Your task to perform on an android device: turn on data saver in the chrome app Image 0: 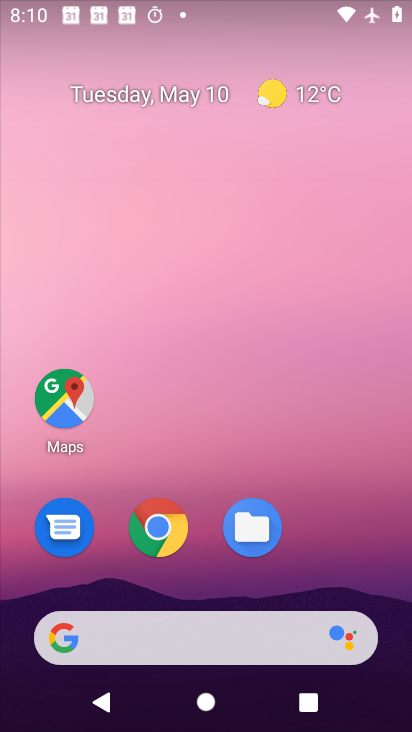
Step 0: click (164, 535)
Your task to perform on an android device: turn on data saver in the chrome app Image 1: 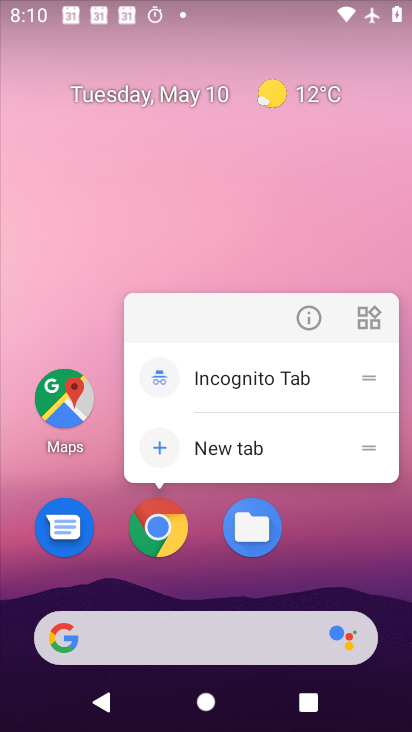
Step 1: click (163, 554)
Your task to perform on an android device: turn on data saver in the chrome app Image 2: 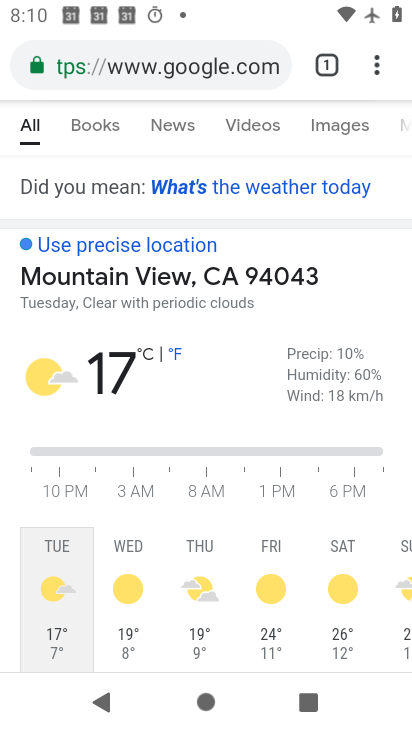
Step 2: drag from (377, 77) to (254, 572)
Your task to perform on an android device: turn on data saver in the chrome app Image 3: 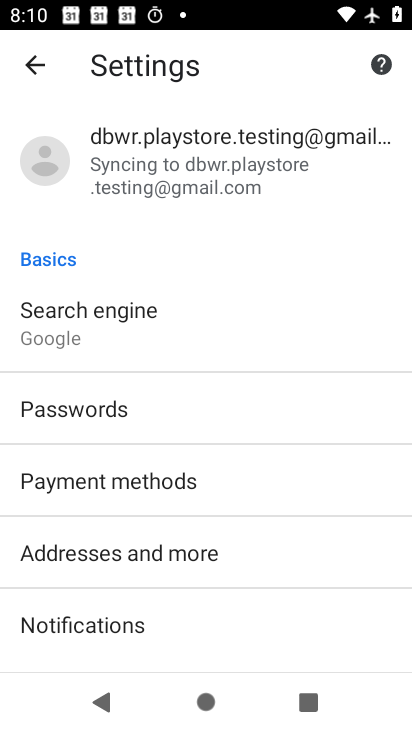
Step 3: drag from (264, 546) to (305, 248)
Your task to perform on an android device: turn on data saver in the chrome app Image 4: 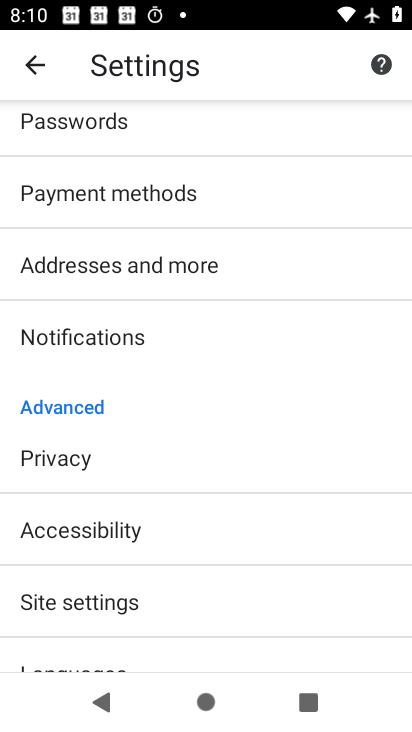
Step 4: drag from (268, 570) to (288, 412)
Your task to perform on an android device: turn on data saver in the chrome app Image 5: 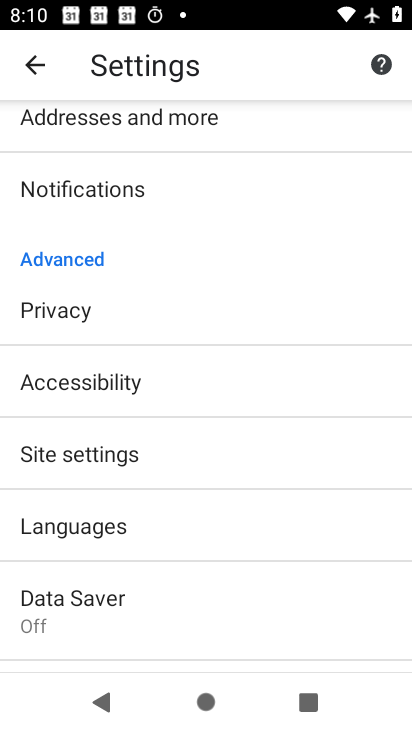
Step 5: click (122, 606)
Your task to perform on an android device: turn on data saver in the chrome app Image 6: 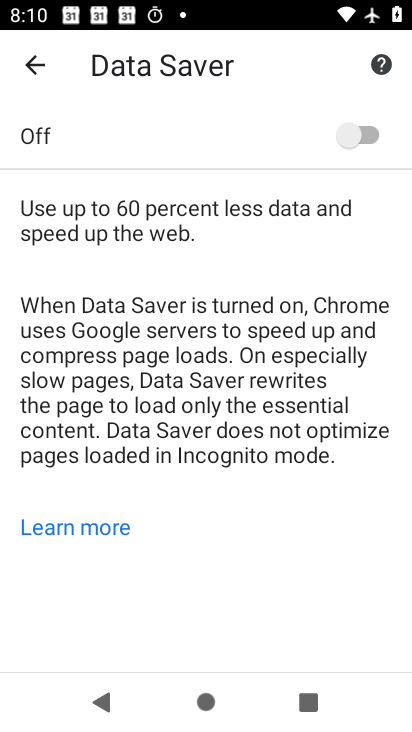
Step 6: click (372, 142)
Your task to perform on an android device: turn on data saver in the chrome app Image 7: 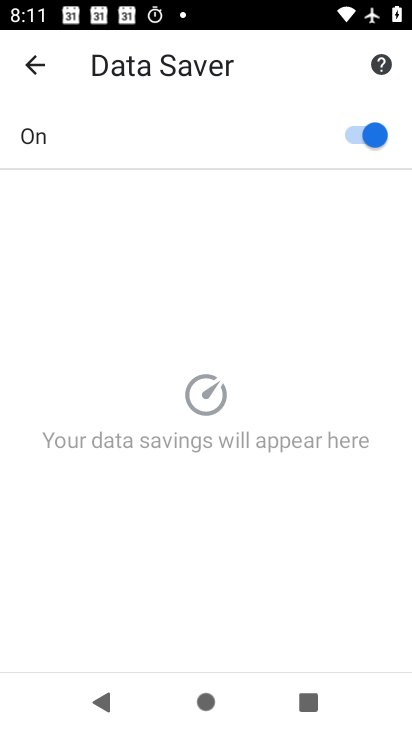
Step 7: task complete